Your task to perform on an android device: install app "Pandora - Music & Podcasts" Image 0: 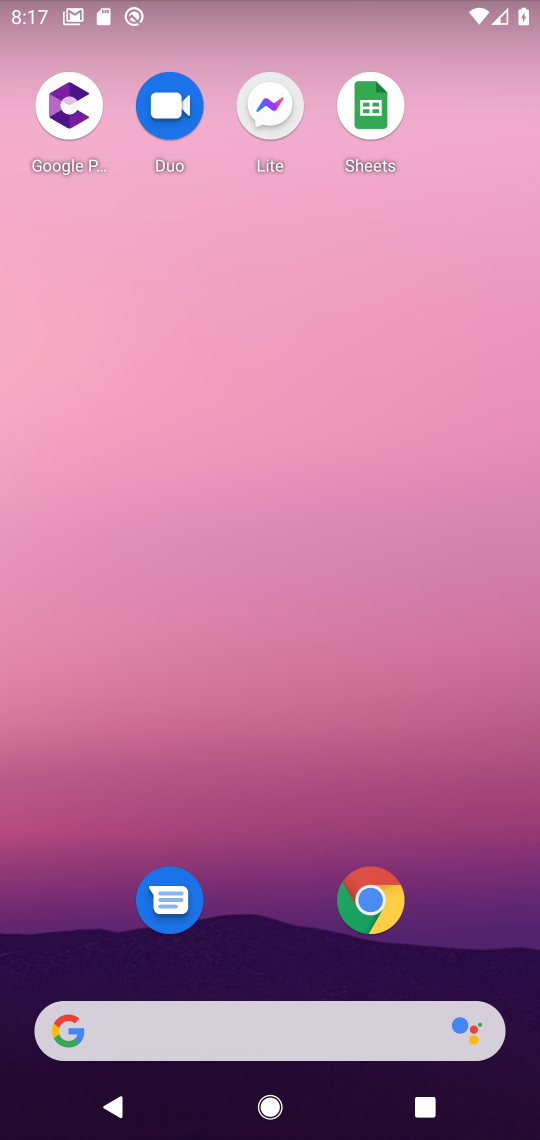
Step 0: drag from (311, 970) to (183, 109)
Your task to perform on an android device: install app "Pandora - Music & Podcasts" Image 1: 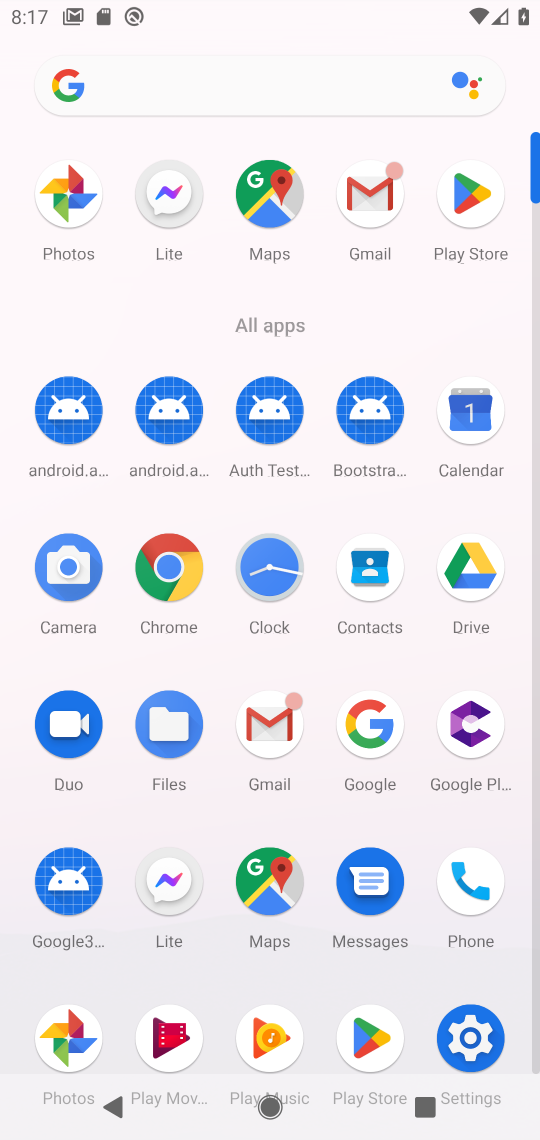
Step 1: click (382, 1020)
Your task to perform on an android device: install app "Pandora - Music & Podcasts" Image 2: 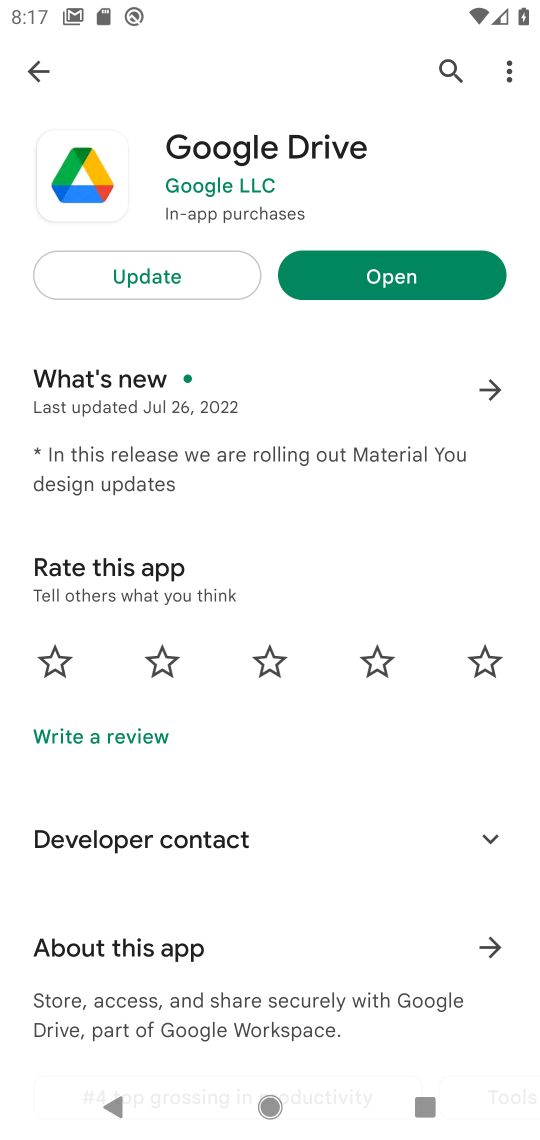
Step 2: click (42, 70)
Your task to perform on an android device: install app "Pandora - Music & Podcasts" Image 3: 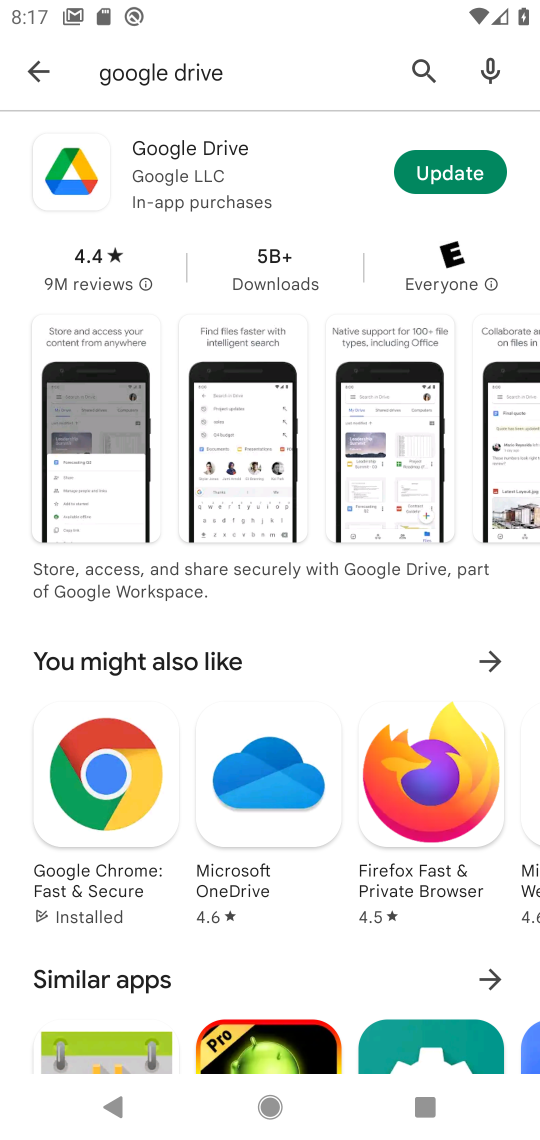
Step 3: click (41, 69)
Your task to perform on an android device: install app "Pandora - Music & Podcasts" Image 4: 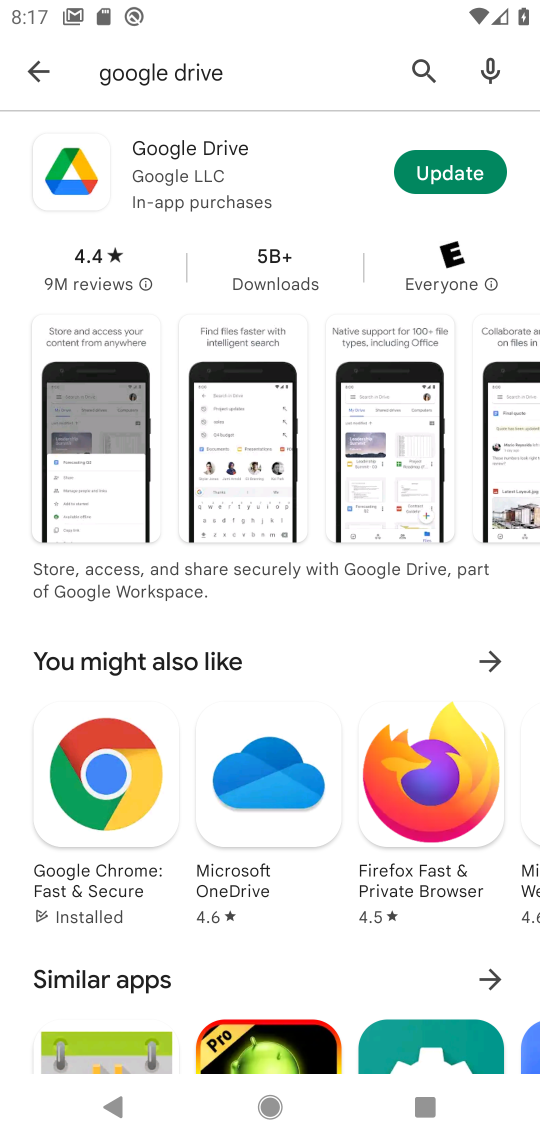
Step 4: click (27, 71)
Your task to perform on an android device: install app "Pandora - Music & Podcasts" Image 5: 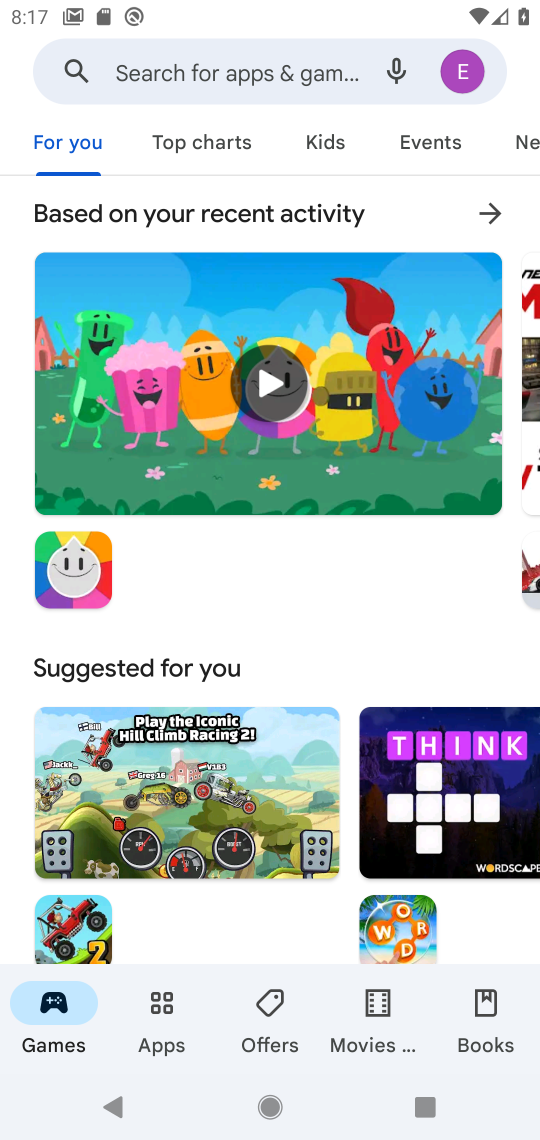
Step 5: click (170, 87)
Your task to perform on an android device: install app "Pandora - Music & Podcasts" Image 6: 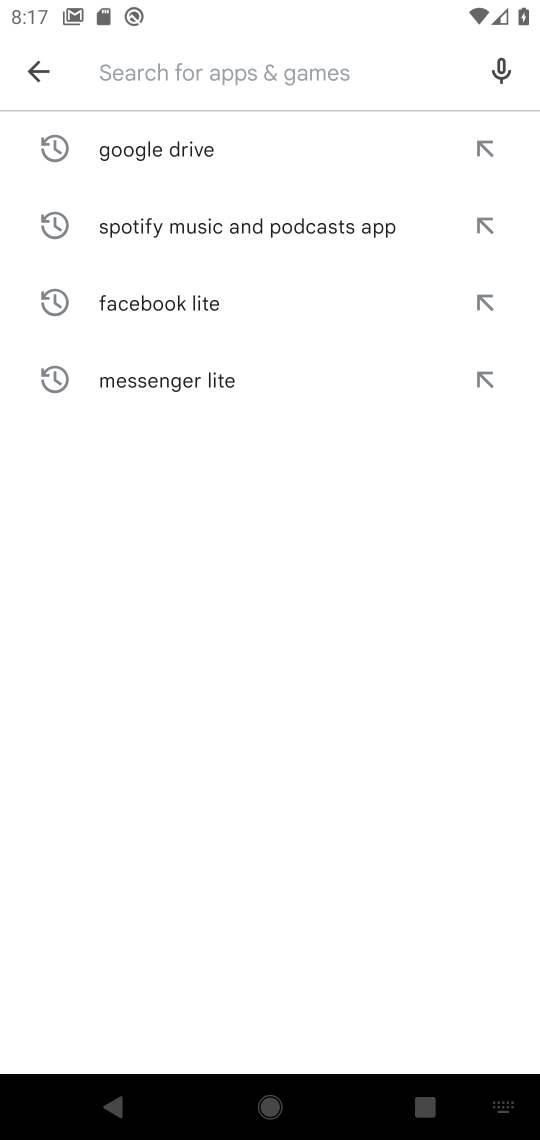
Step 6: type "Pandora"
Your task to perform on an android device: install app "Pandora - Music & Podcasts" Image 7: 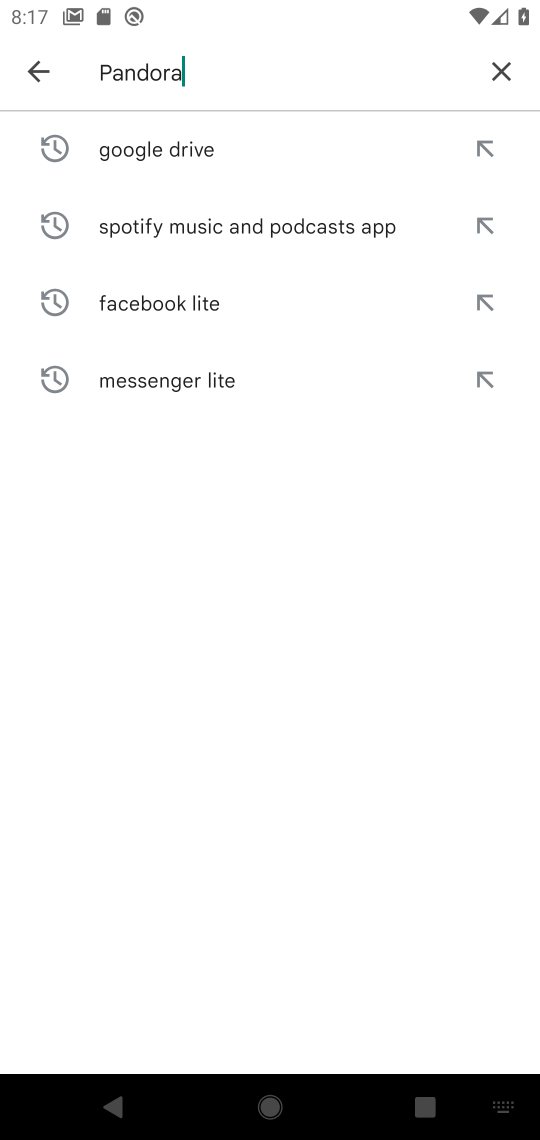
Step 7: type ""
Your task to perform on an android device: install app "Pandora - Music & Podcasts" Image 8: 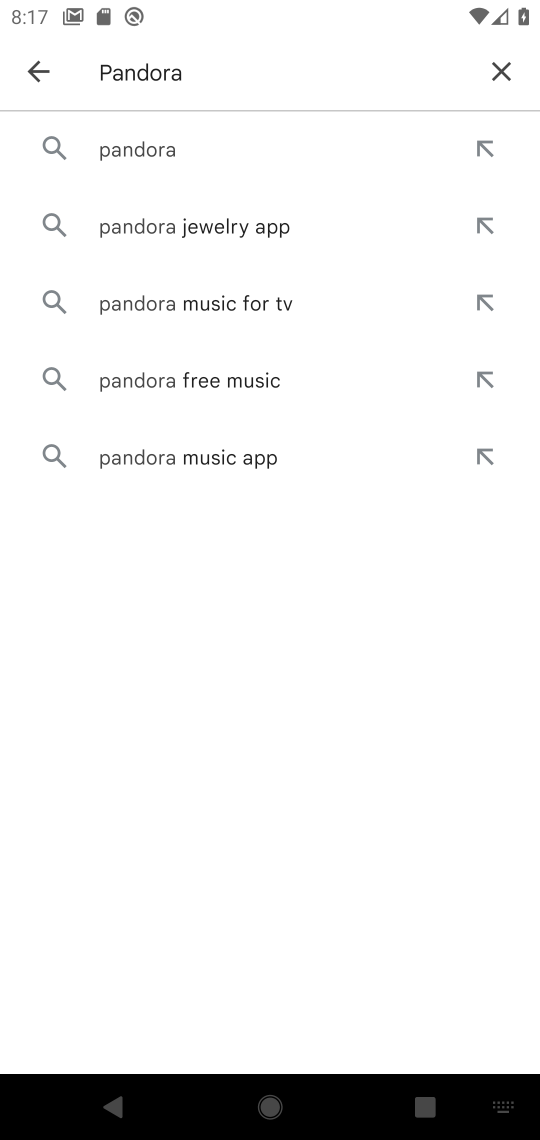
Step 8: click (165, 158)
Your task to perform on an android device: install app "Pandora - Music & Podcasts" Image 9: 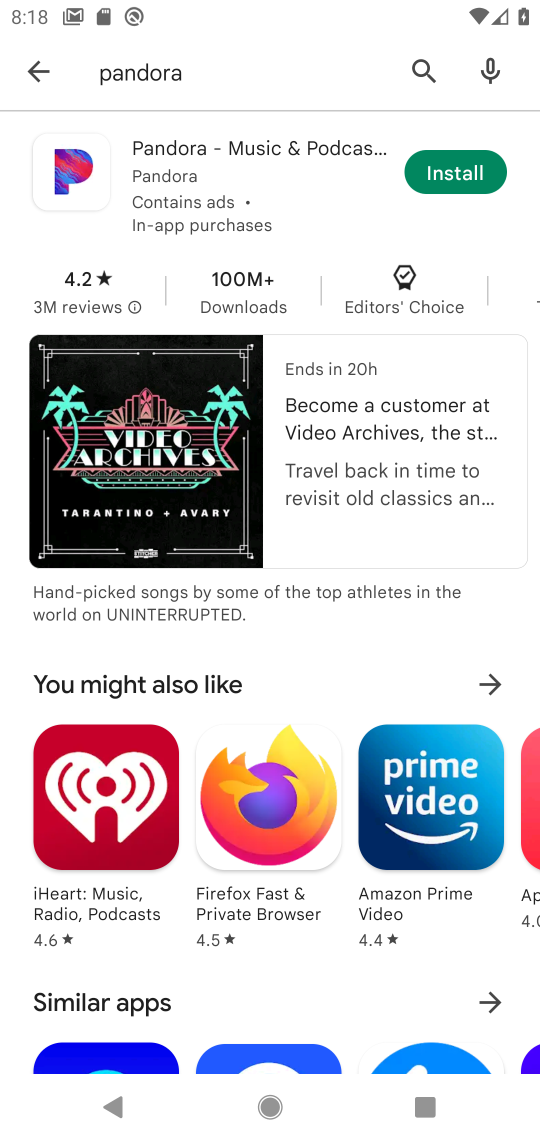
Step 9: click (431, 181)
Your task to perform on an android device: install app "Pandora - Music & Podcasts" Image 10: 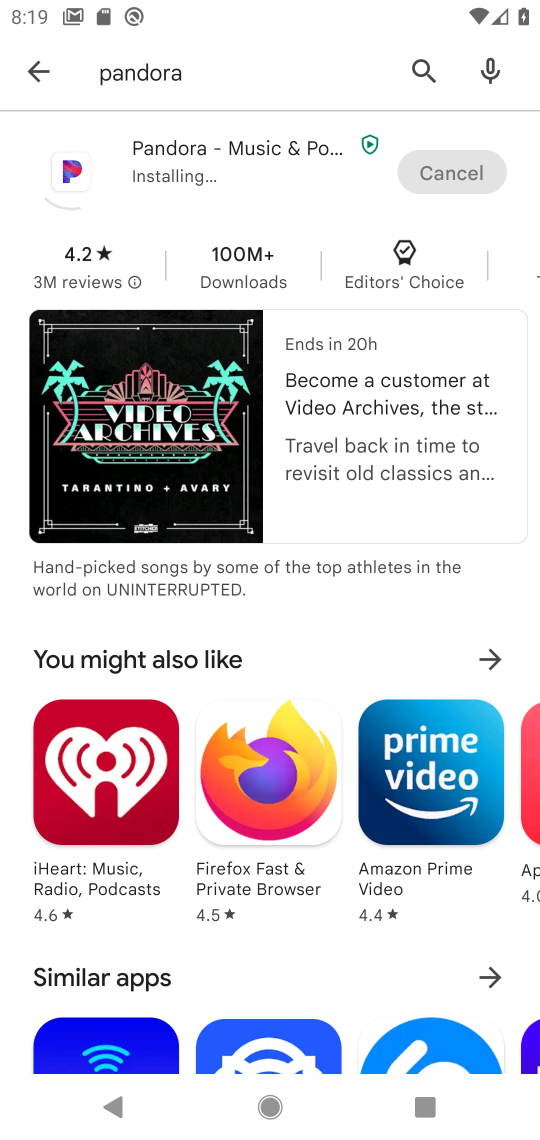
Step 10: click (75, 174)
Your task to perform on an android device: install app "Pandora - Music & Podcasts" Image 11: 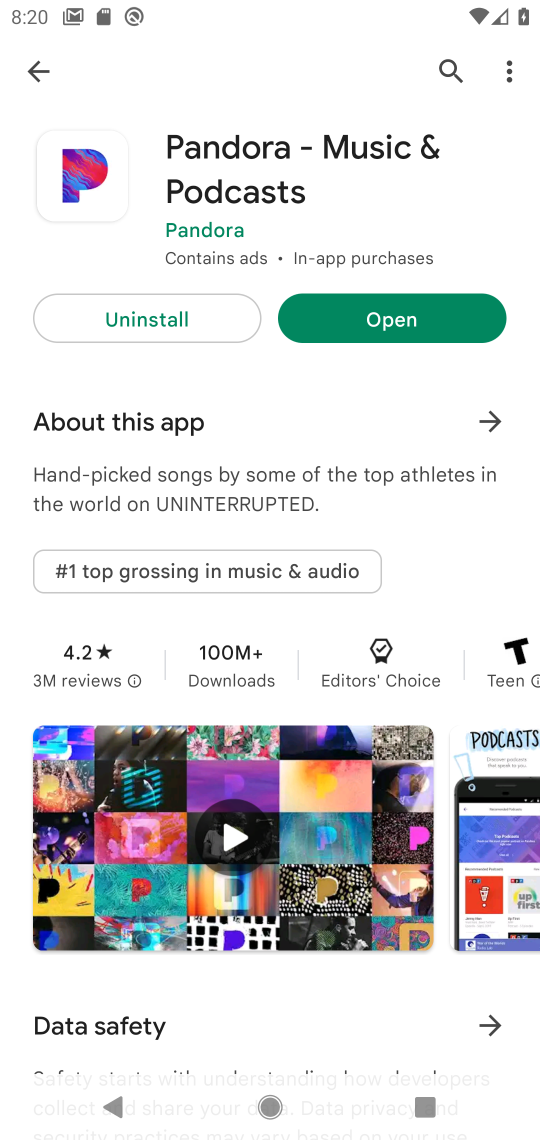
Step 11: task complete